Your task to perform on an android device: make emails show in primary in the gmail app Image 0: 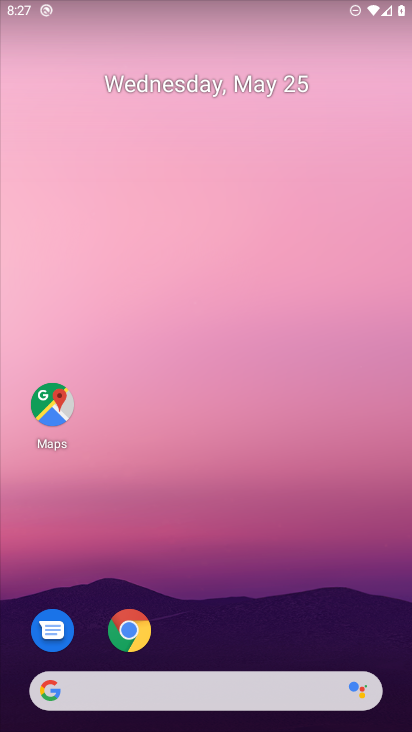
Step 0: drag from (214, 672) to (270, 356)
Your task to perform on an android device: make emails show in primary in the gmail app Image 1: 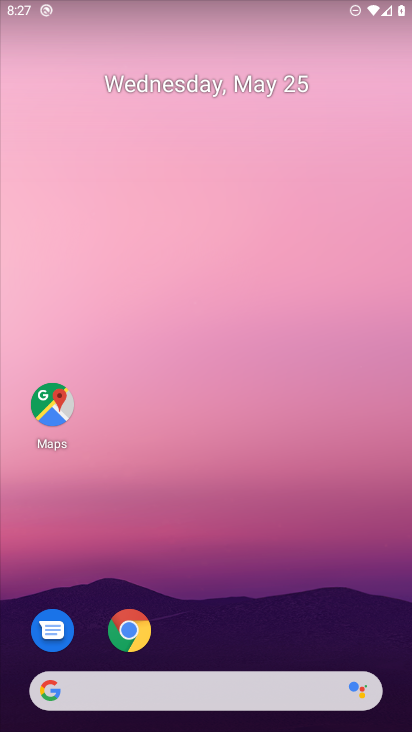
Step 1: drag from (263, 668) to (286, 232)
Your task to perform on an android device: make emails show in primary in the gmail app Image 2: 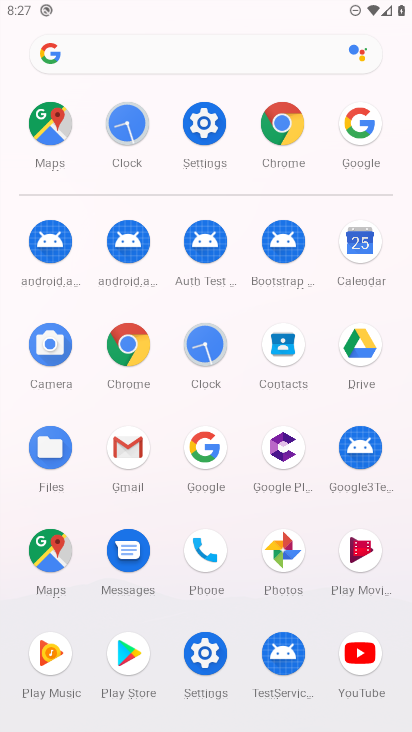
Step 2: click (144, 450)
Your task to perform on an android device: make emails show in primary in the gmail app Image 3: 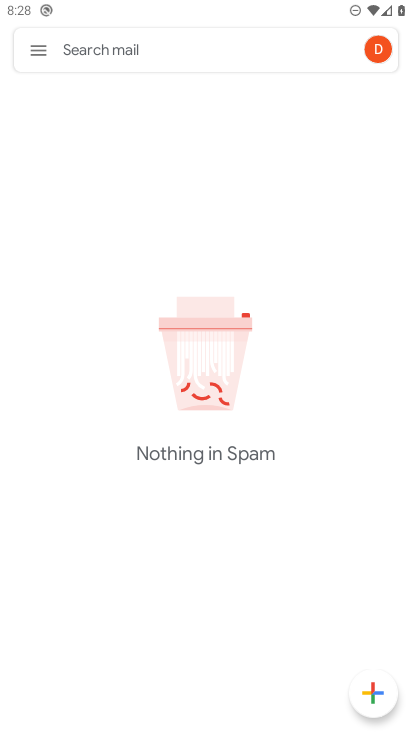
Step 3: click (33, 51)
Your task to perform on an android device: make emails show in primary in the gmail app Image 4: 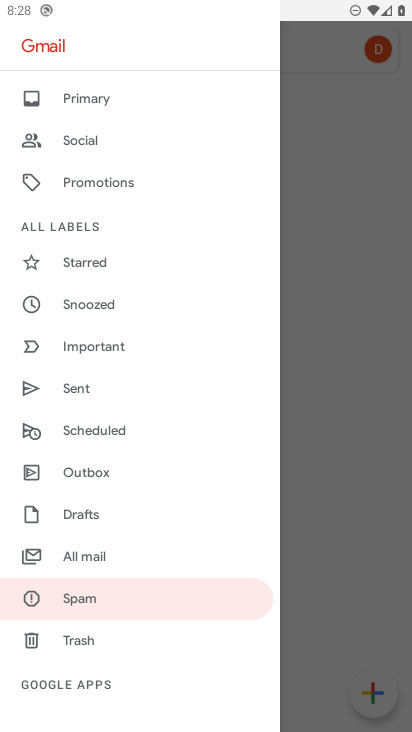
Step 4: click (91, 95)
Your task to perform on an android device: make emails show in primary in the gmail app Image 5: 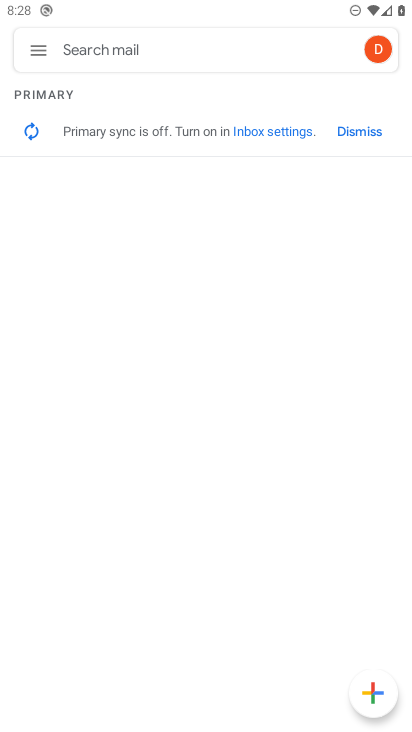
Step 5: task complete